Your task to perform on an android device: set default search engine in the chrome app Image 0: 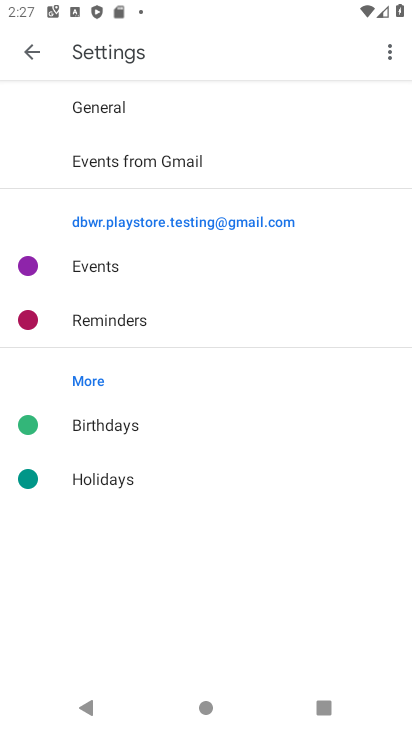
Step 0: press home button
Your task to perform on an android device: set default search engine in the chrome app Image 1: 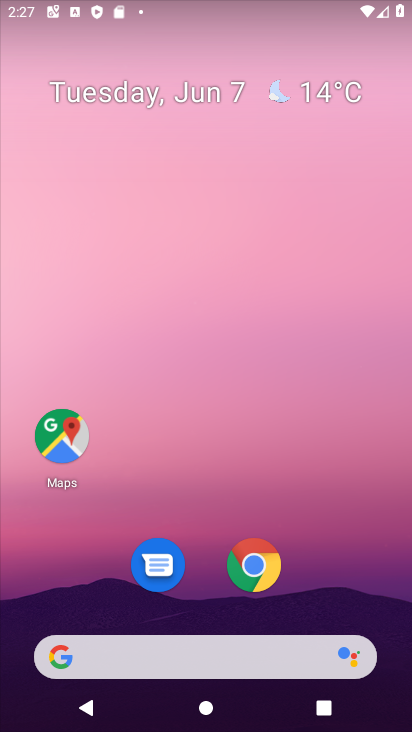
Step 1: drag from (342, 621) to (317, 0)
Your task to perform on an android device: set default search engine in the chrome app Image 2: 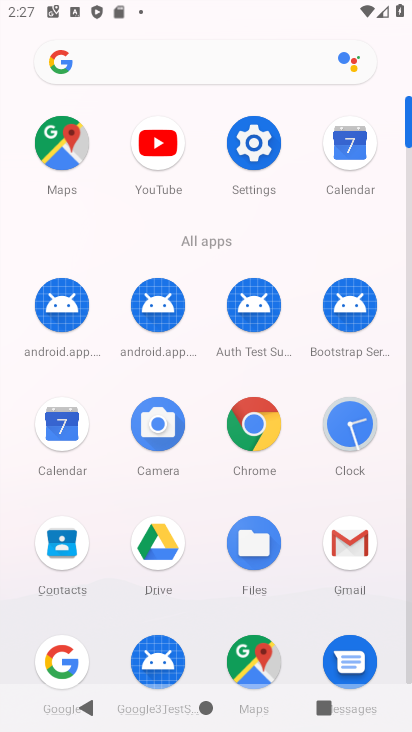
Step 2: click (264, 421)
Your task to perform on an android device: set default search engine in the chrome app Image 3: 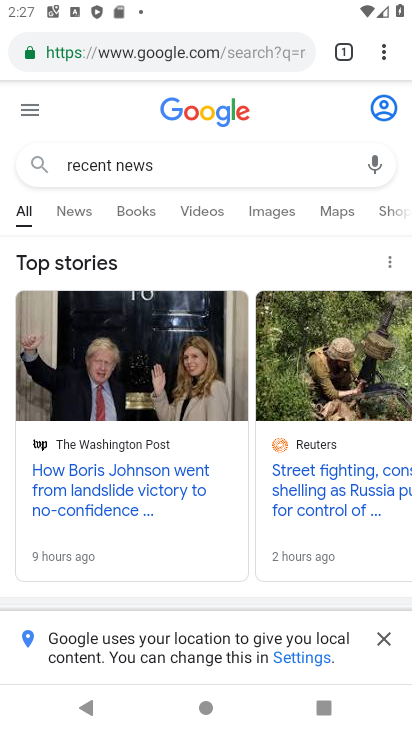
Step 3: click (378, 54)
Your task to perform on an android device: set default search engine in the chrome app Image 4: 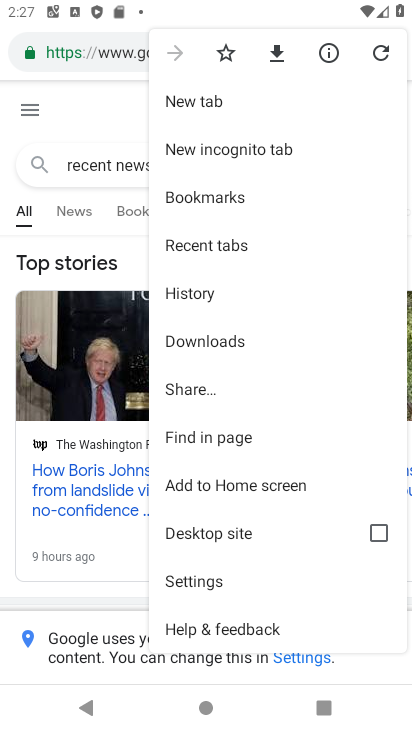
Step 4: click (228, 575)
Your task to perform on an android device: set default search engine in the chrome app Image 5: 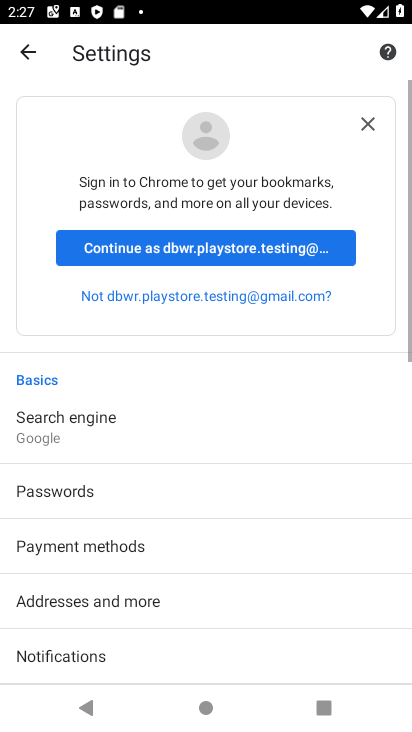
Step 5: drag from (195, 650) to (268, 246)
Your task to perform on an android device: set default search engine in the chrome app Image 6: 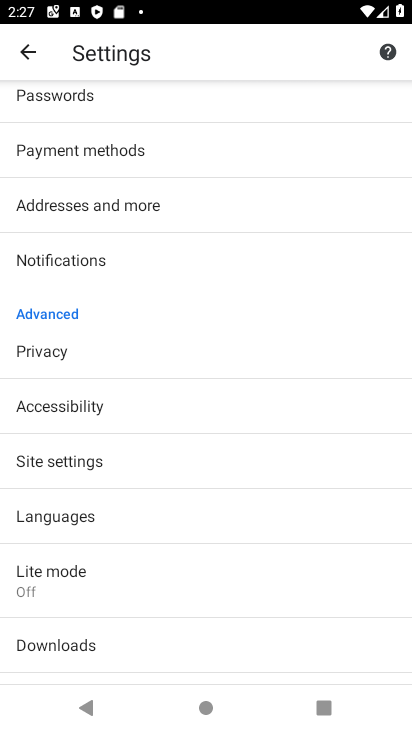
Step 6: drag from (139, 135) to (199, 606)
Your task to perform on an android device: set default search engine in the chrome app Image 7: 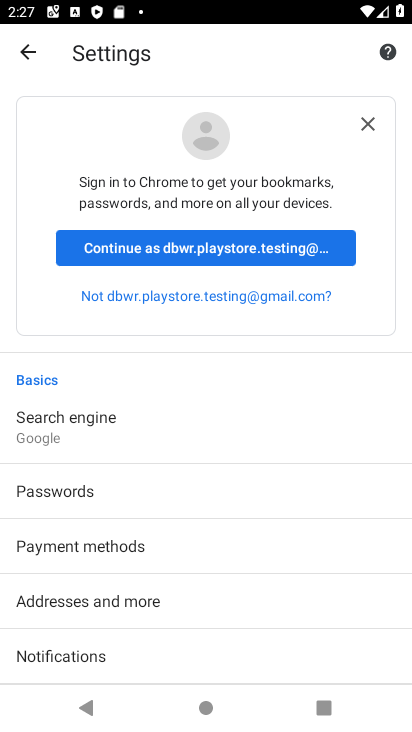
Step 7: click (131, 434)
Your task to perform on an android device: set default search engine in the chrome app Image 8: 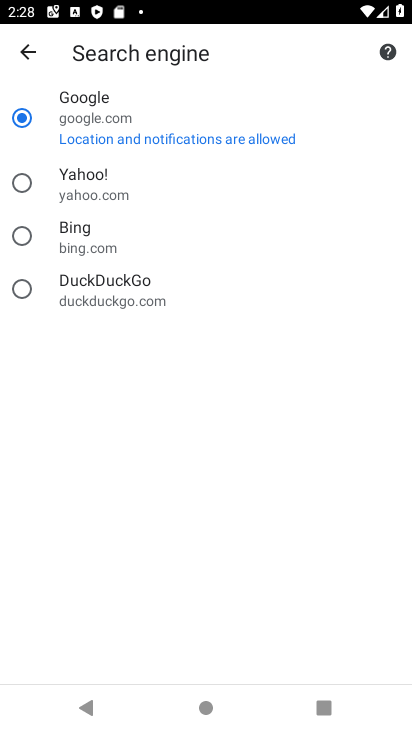
Step 8: task complete